Your task to perform on an android device: turn off wifi Image 0: 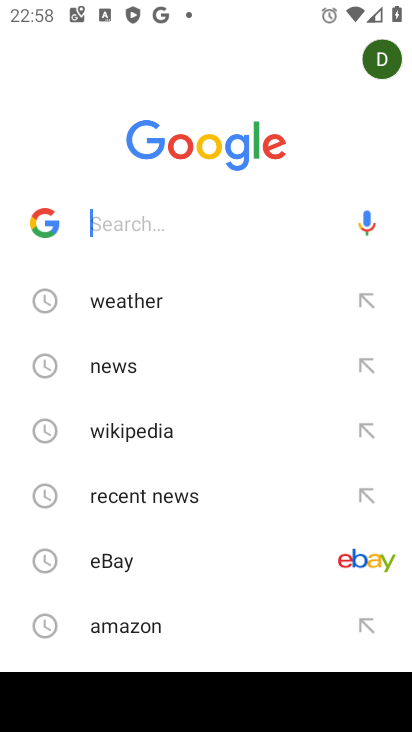
Step 0: press home button
Your task to perform on an android device: turn off wifi Image 1: 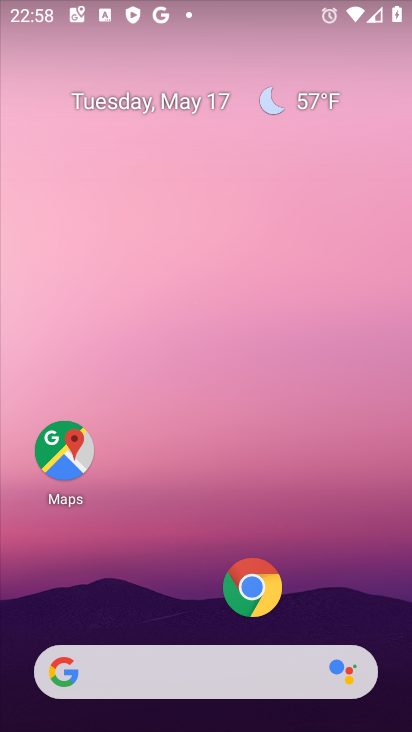
Step 1: drag from (339, 4) to (185, 684)
Your task to perform on an android device: turn off wifi Image 2: 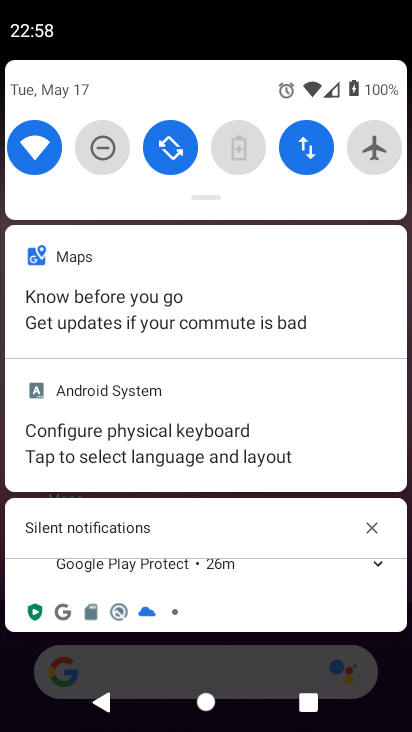
Step 2: click (40, 143)
Your task to perform on an android device: turn off wifi Image 3: 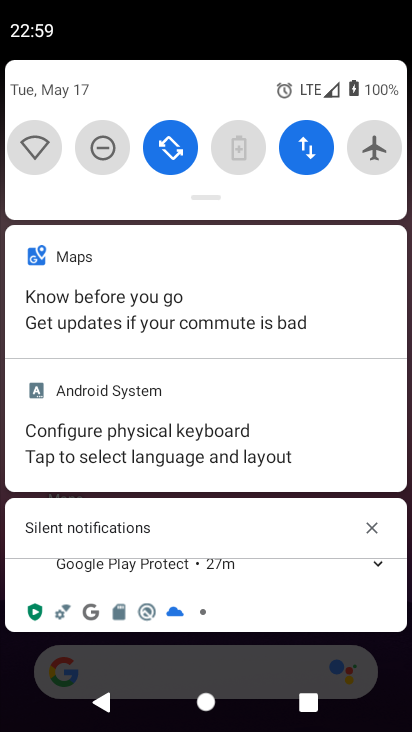
Step 3: task complete